Your task to perform on an android device: turn on airplane mode Image 0: 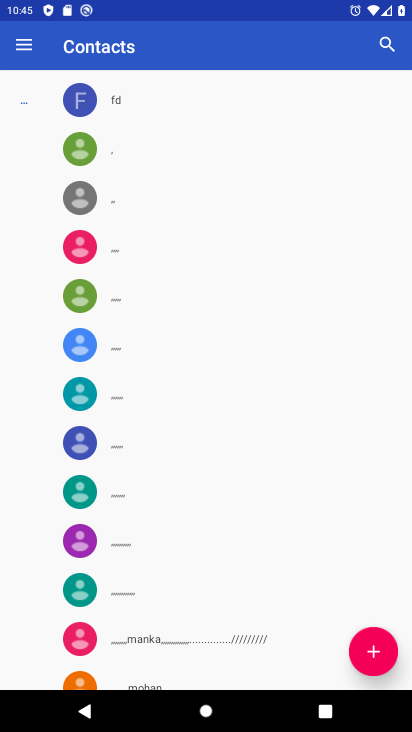
Step 0: press home button
Your task to perform on an android device: turn on airplane mode Image 1: 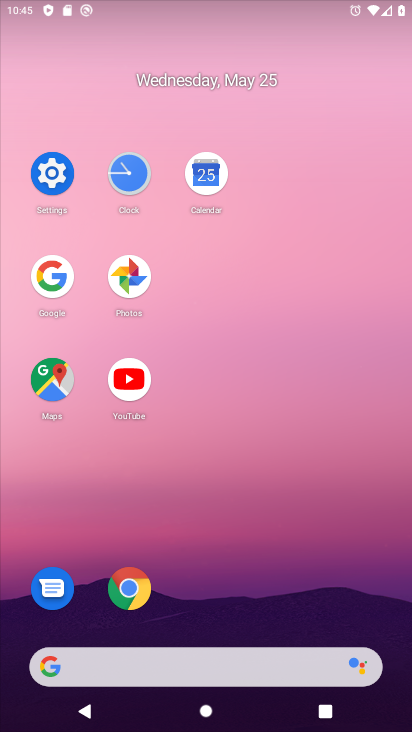
Step 1: click (55, 182)
Your task to perform on an android device: turn on airplane mode Image 2: 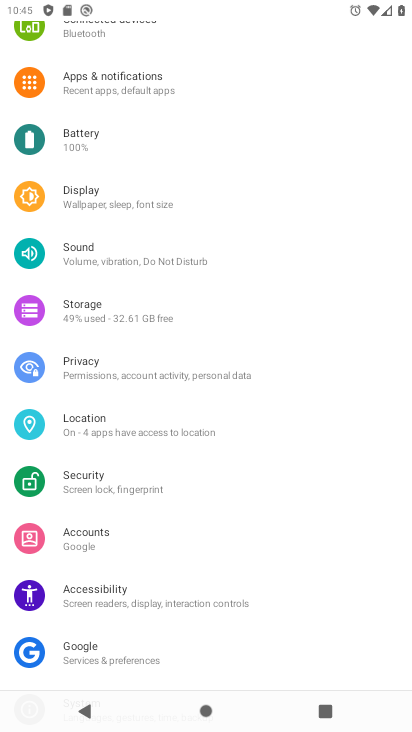
Step 2: drag from (213, 87) to (156, 416)
Your task to perform on an android device: turn on airplane mode Image 3: 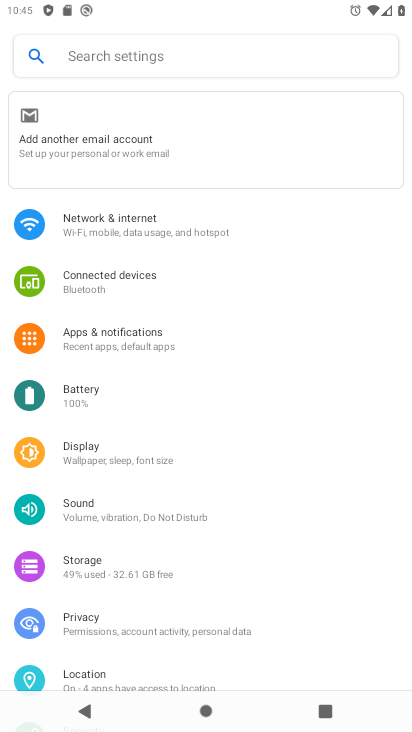
Step 3: click (200, 237)
Your task to perform on an android device: turn on airplane mode Image 4: 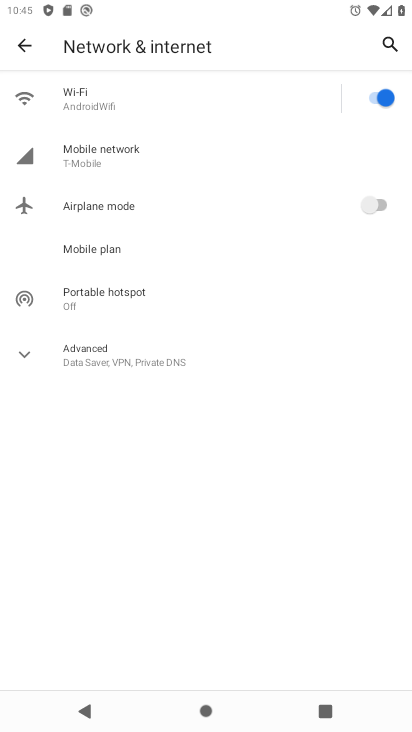
Step 4: click (386, 195)
Your task to perform on an android device: turn on airplane mode Image 5: 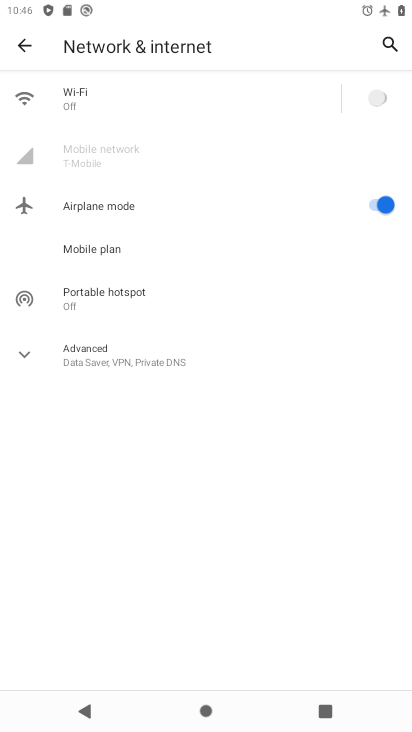
Step 5: task complete